Your task to perform on an android device: Clear the shopping cart on amazon. Search for logitech g pro on amazon, select the first entry, and add it to the cart. Image 0: 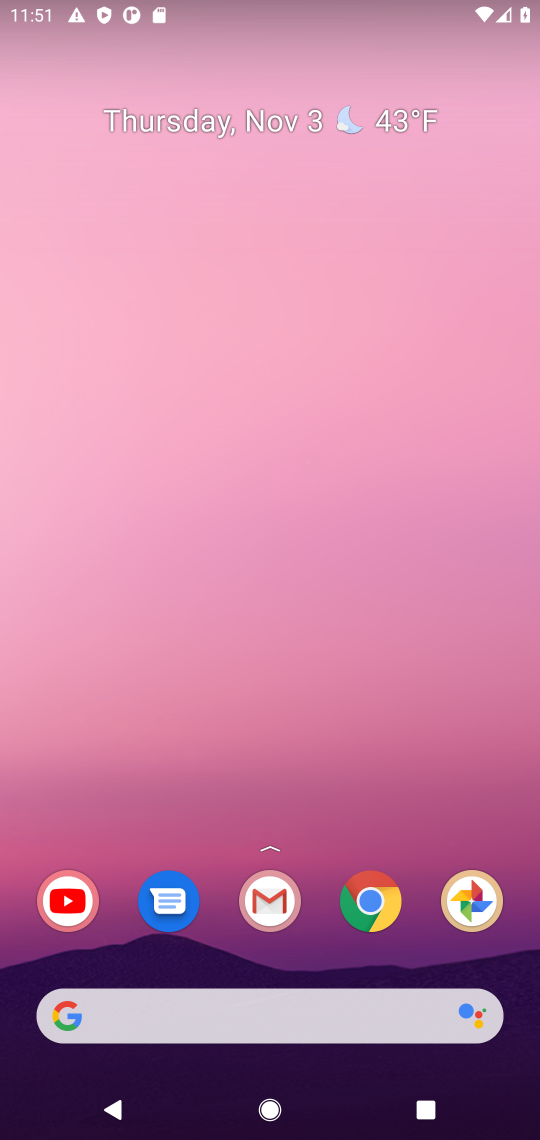
Step 0: click (378, 895)
Your task to perform on an android device: Clear the shopping cart on amazon. Search for logitech g pro on amazon, select the first entry, and add it to the cart. Image 1: 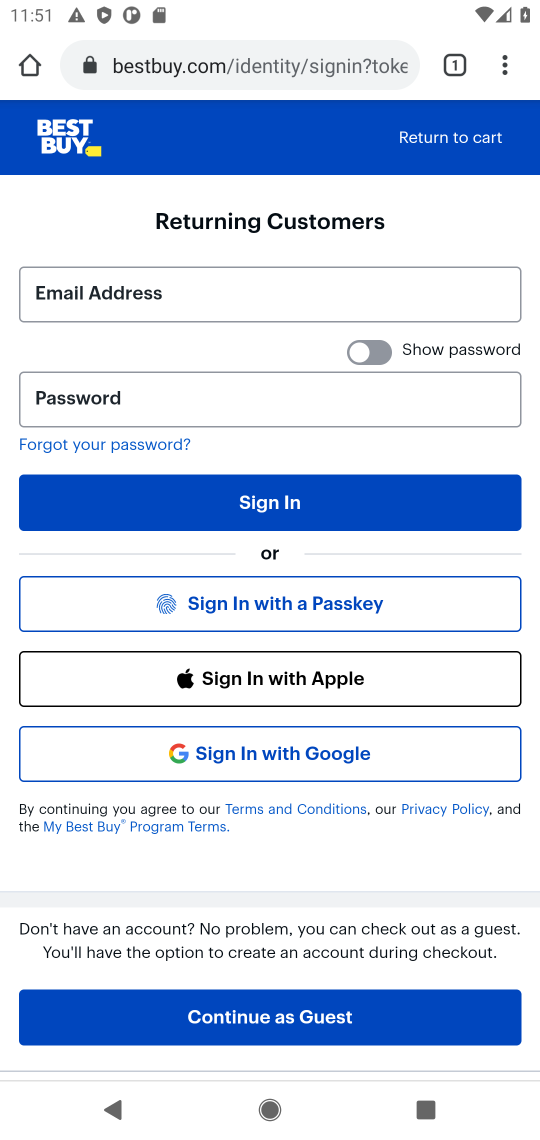
Step 1: click (174, 56)
Your task to perform on an android device: Clear the shopping cart on amazon. Search for logitech g pro on amazon, select the first entry, and add it to the cart. Image 2: 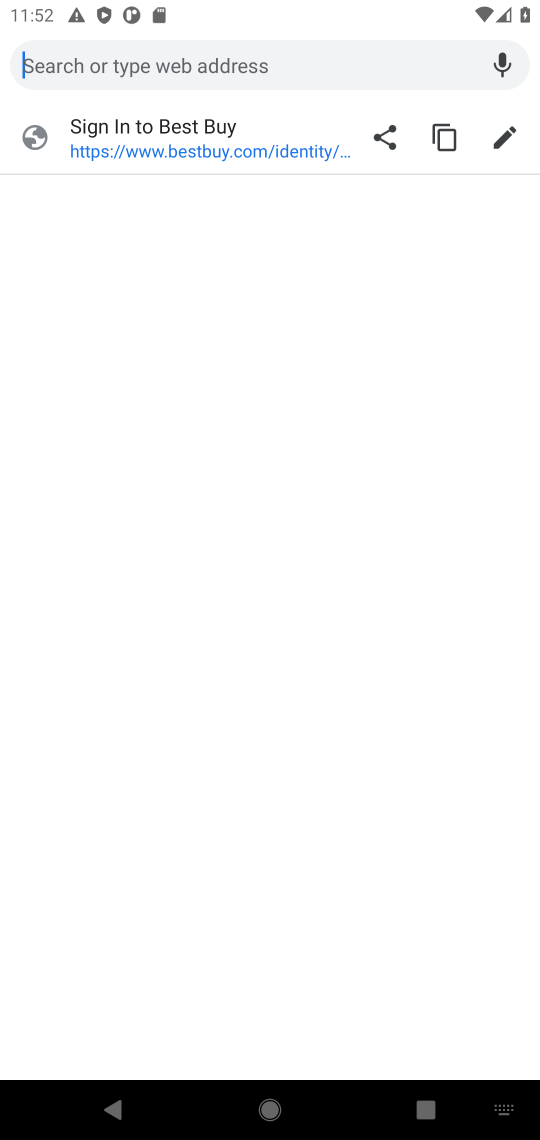
Step 2: type "amazon"
Your task to perform on an android device: Clear the shopping cart on amazon. Search for logitech g pro on amazon, select the first entry, and add it to the cart. Image 3: 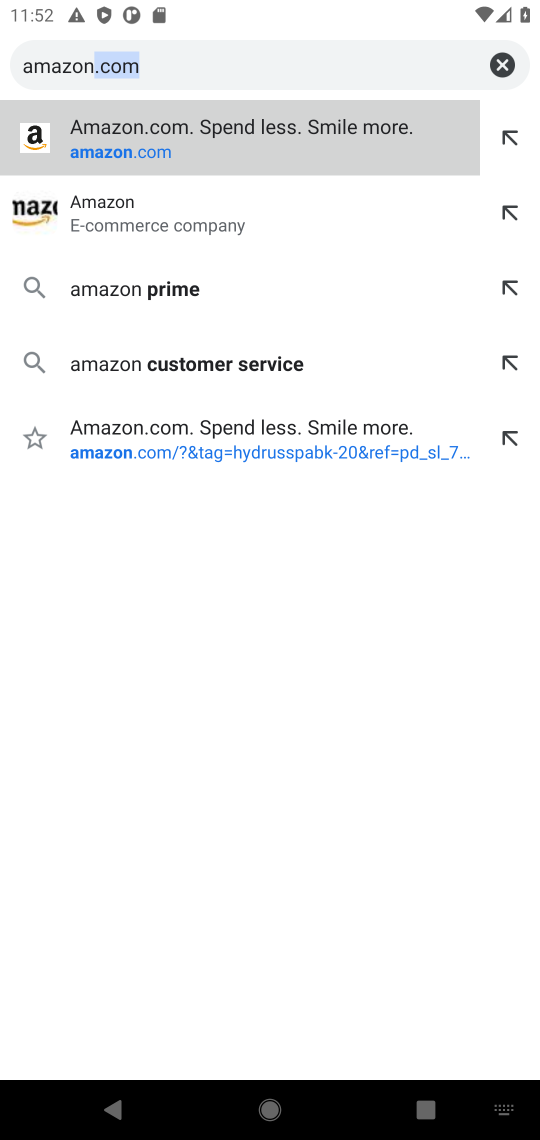
Step 3: click (161, 221)
Your task to perform on an android device: Clear the shopping cart on amazon. Search for logitech g pro on amazon, select the first entry, and add it to the cart. Image 4: 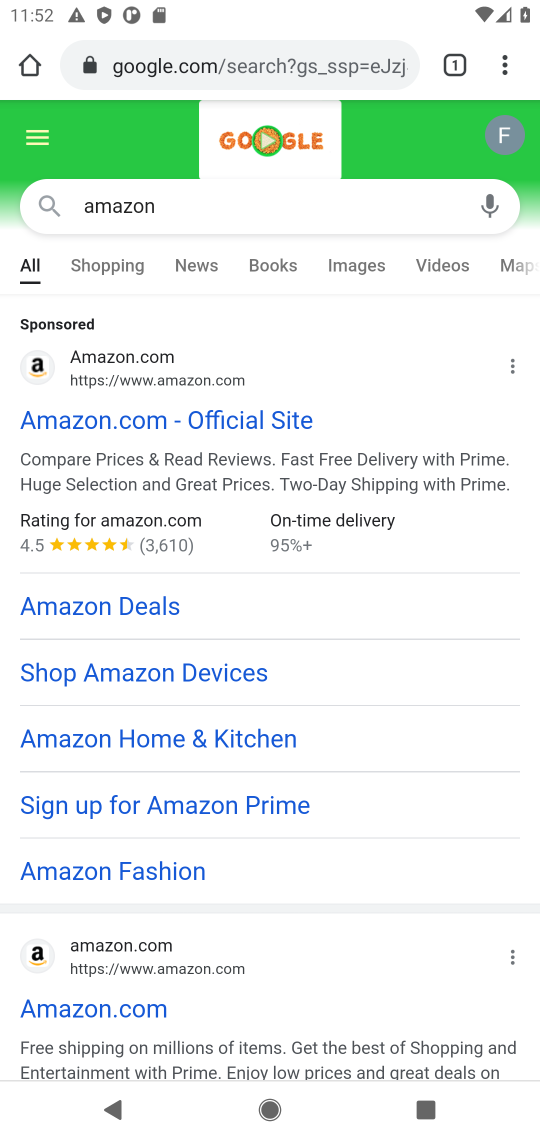
Step 4: click (222, 955)
Your task to perform on an android device: Clear the shopping cart on amazon. Search for logitech g pro on amazon, select the first entry, and add it to the cart. Image 5: 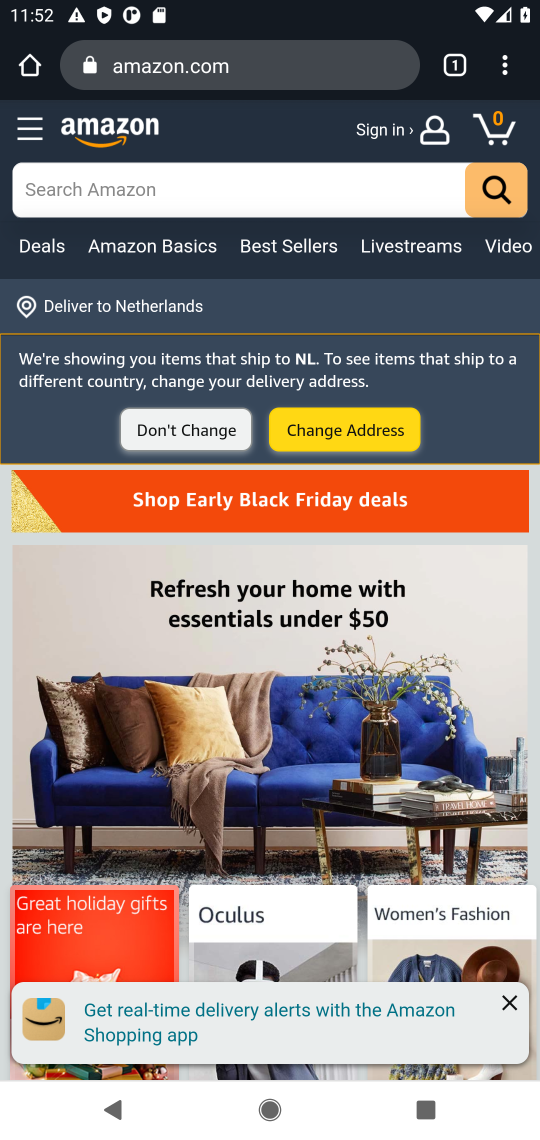
Step 5: click (223, 188)
Your task to perform on an android device: Clear the shopping cart on amazon. Search for logitech g pro on amazon, select the first entry, and add it to the cart. Image 6: 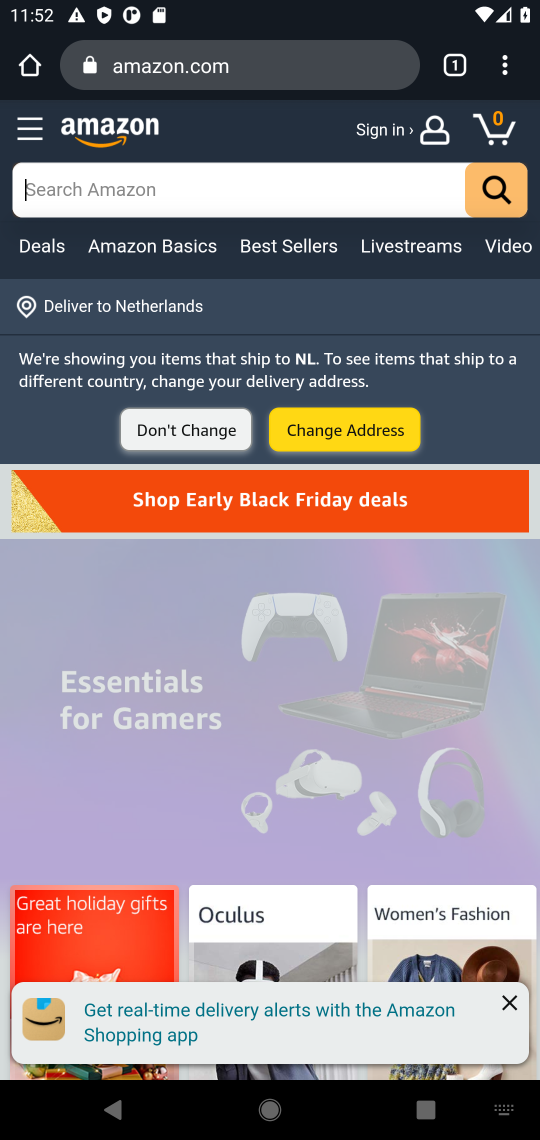
Step 6: type "logitech g pro"
Your task to perform on an android device: Clear the shopping cart on amazon. Search for logitech g pro on amazon, select the first entry, and add it to the cart. Image 7: 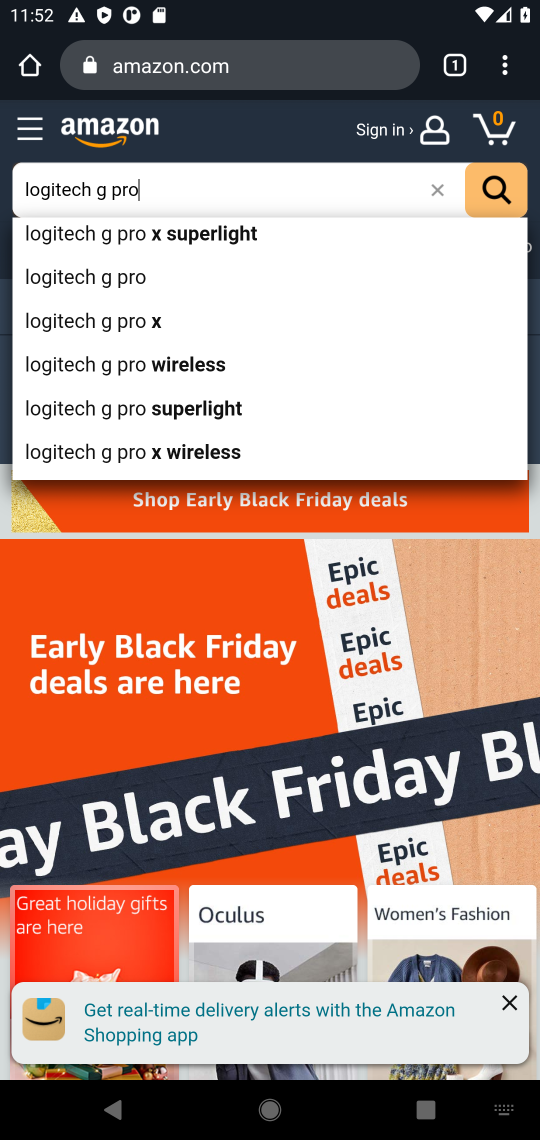
Step 7: click (105, 279)
Your task to perform on an android device: Clear the shopping cart on amazon. Search for logitech g pro on amazon, select the first entry, and add it to the cart. Image 8: 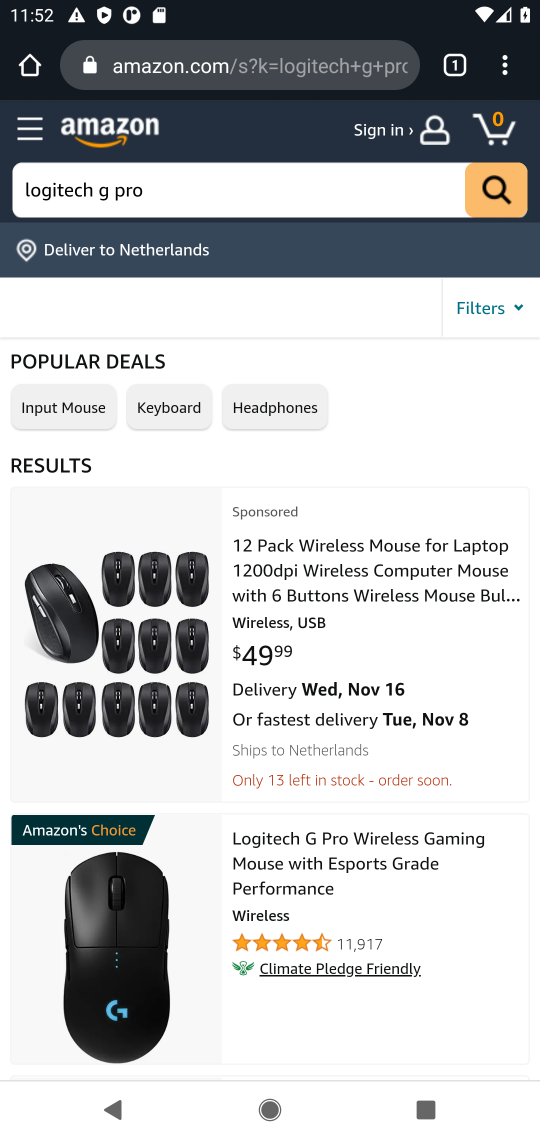
Step 8: click (146, 953)
Your task to perform on an android device: Clear the shopping cart on amazon. Search for logitech g pro on amazon, select the first entry, and add it to the cart. Image 9: 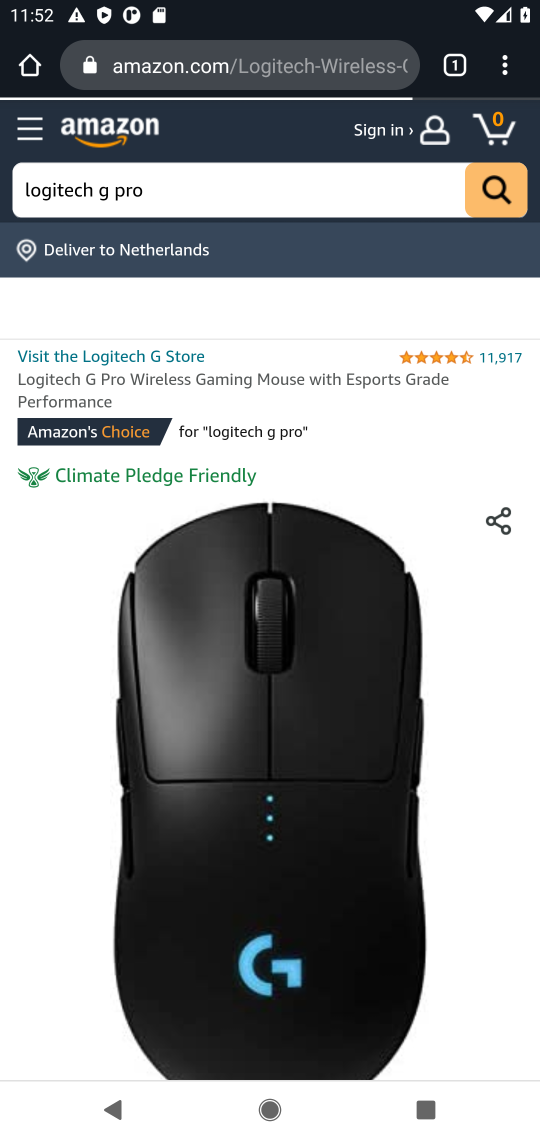
Step 9: drag from (377, 875) to (436, 316)
Your task to perform on an android device: Clear the shopping cart on amazon. Search for logitech g pro on amazon, select the first entry, and add it to the cart. Image 10: 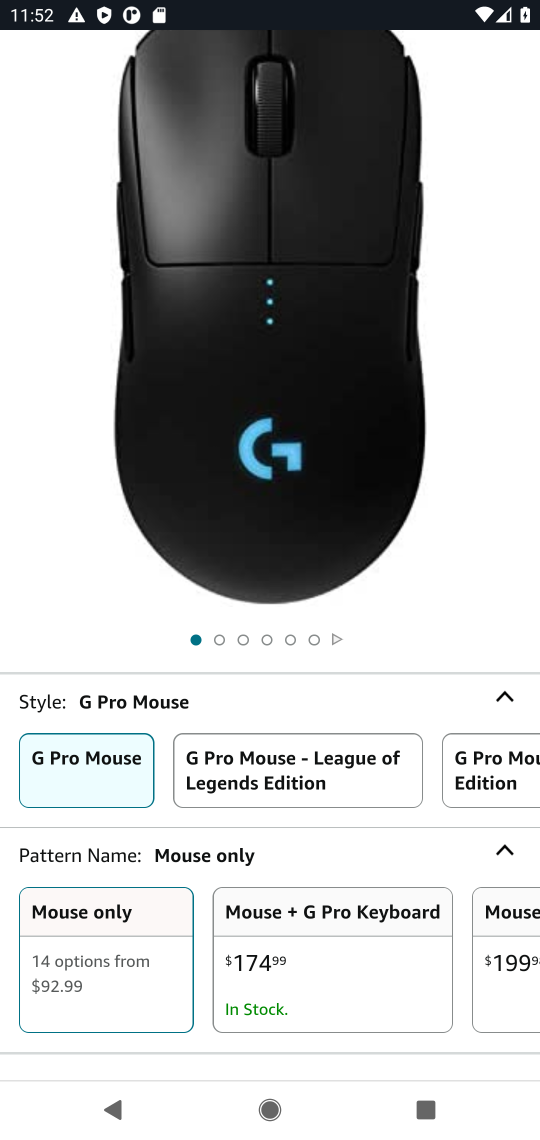
Step 10: drag from (413, 688) to (512, 279)
Your task to perform on an android device: Clear the shopping cart on amazon. Search for logitech g pro on amazon, select the first entry, and add it to the cart. Image 11: 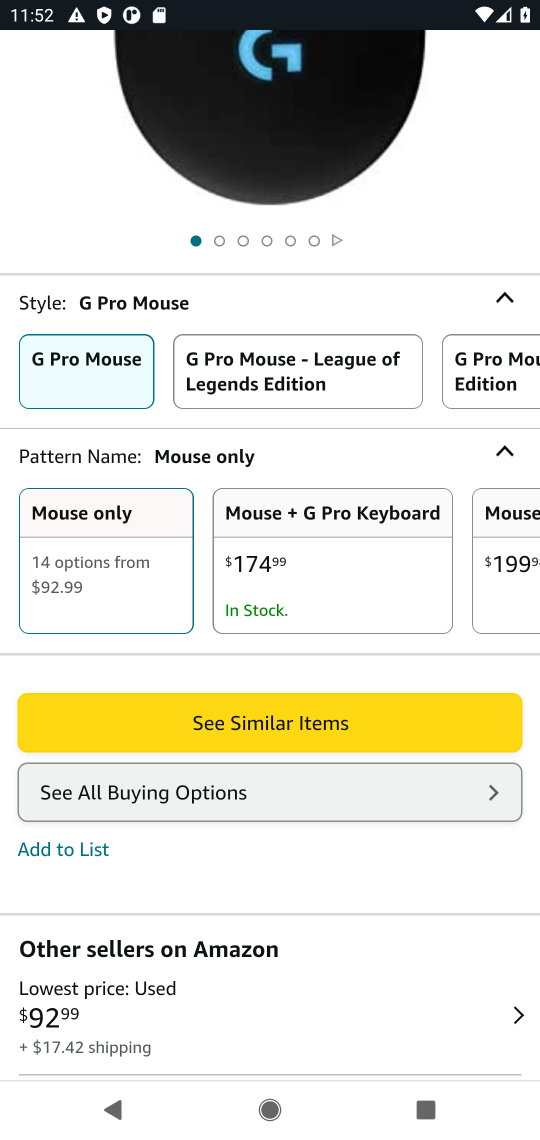
Step 11: press back button
Your task to perform on an android device: Clear the shopping cart on amazon. Search for logitech g pro on amazon, select the first entry, and add it to the cart. Image 12: 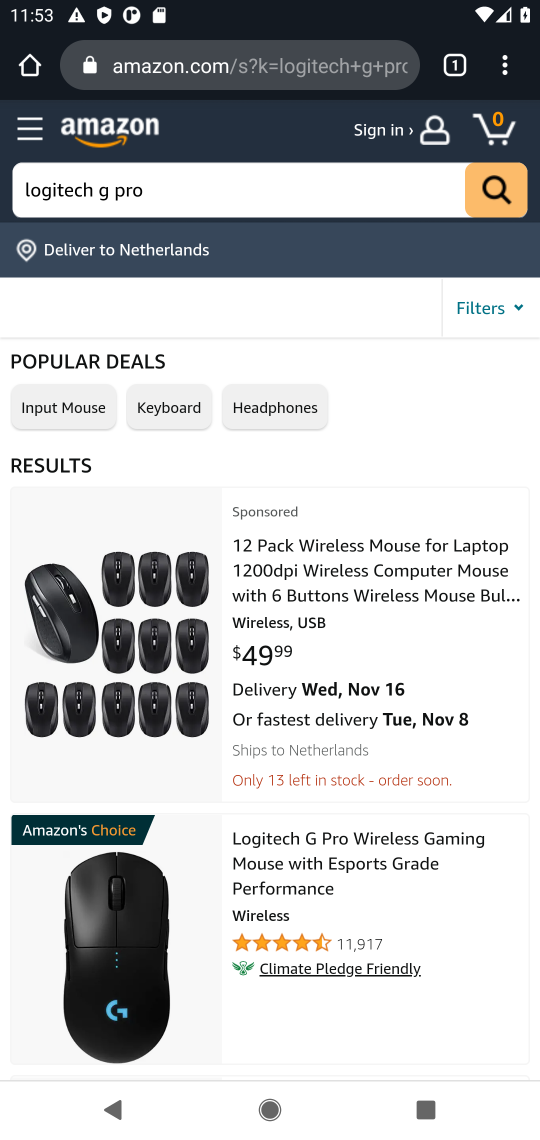
Step 12: drag from (383, 919) to (396, 428)
Your task to perform on an android device: Clear the shopping cart on amazon. Search for logitech g pro on amazon, select the first entry, and add it to the cart. Image 13: 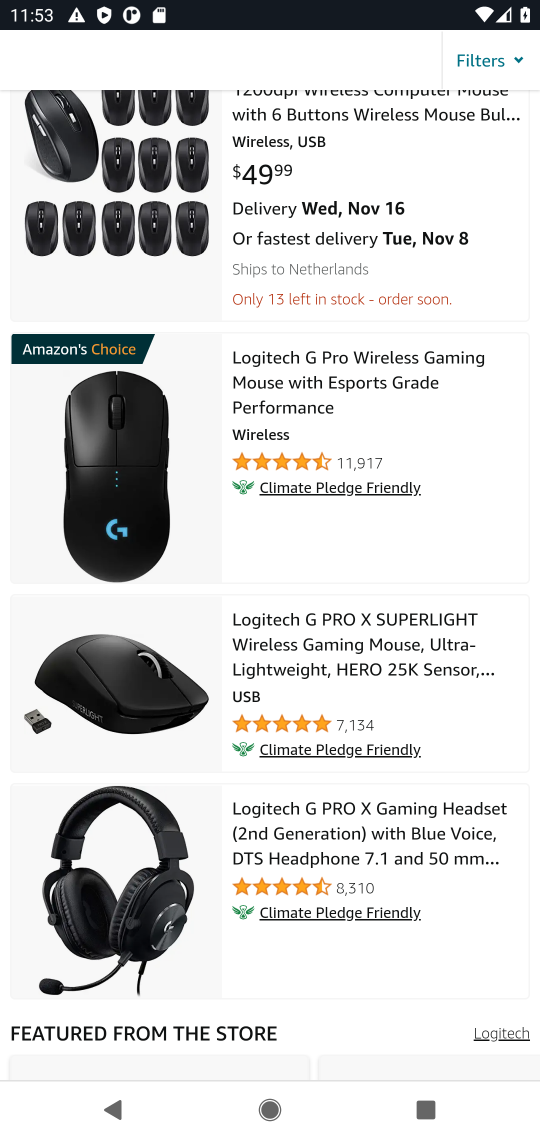
Step 13: click (97, 679)
Your task to perform on an android device: Clear the shopping cart on amazon. Search for logitech g pro on amazon, select the first entry, and add it to the cart. Image 14: 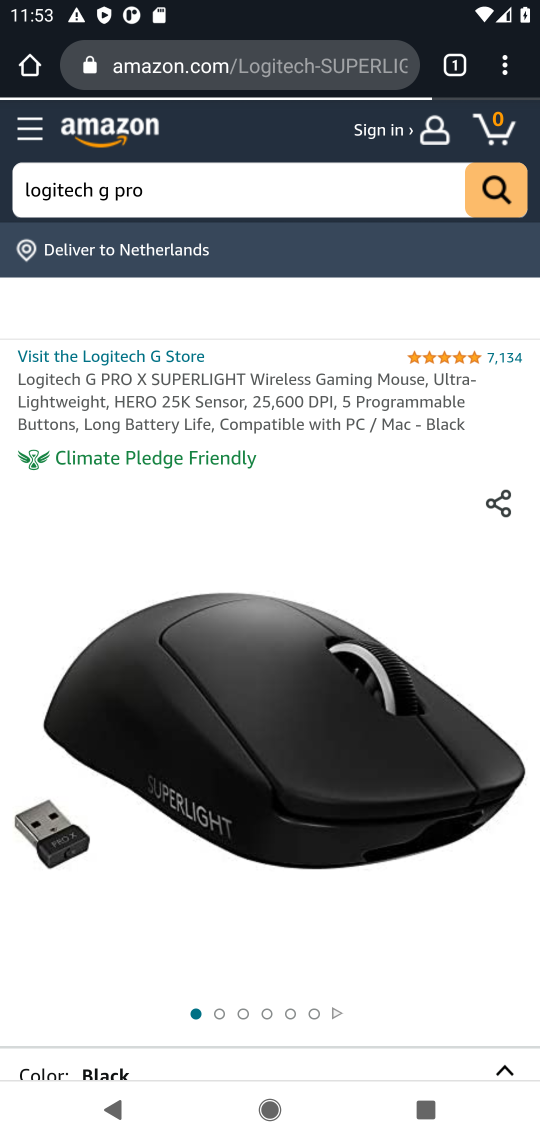
Step 14: drag from (384, 889) to (346, 323)
Your task to perform on an android device: Clear the shopping cart on amazon. Search for logitech g pro on amazon, select the first entry, and add it to the cart. Image 15: 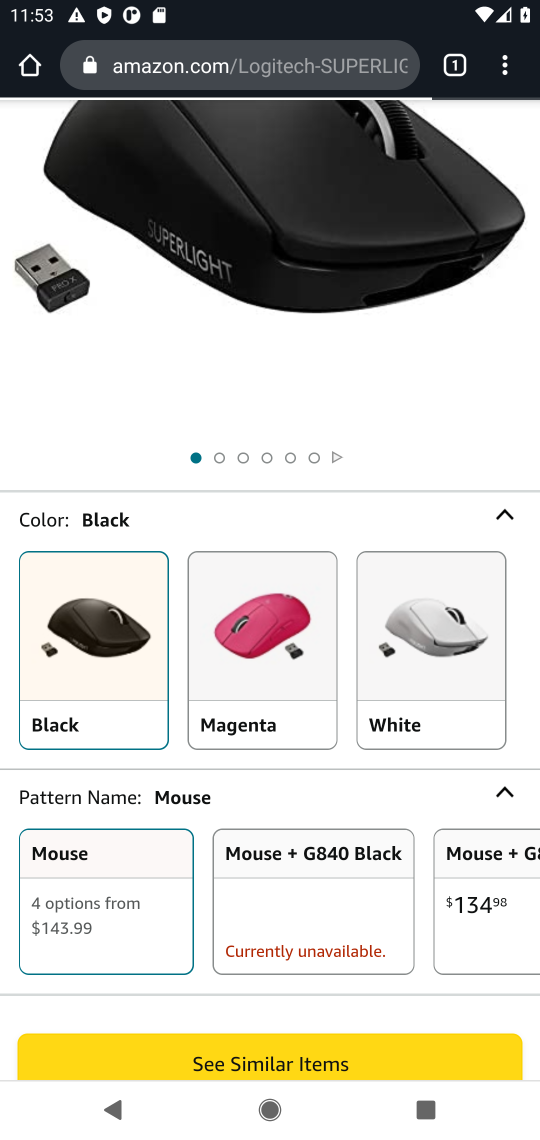
Step 15: press back button
Your task to perform on an android device: Clear the shopping cart on amazon. Search for logitech g pro on amazon, select the first entry, and add it to the cart. Image 16: 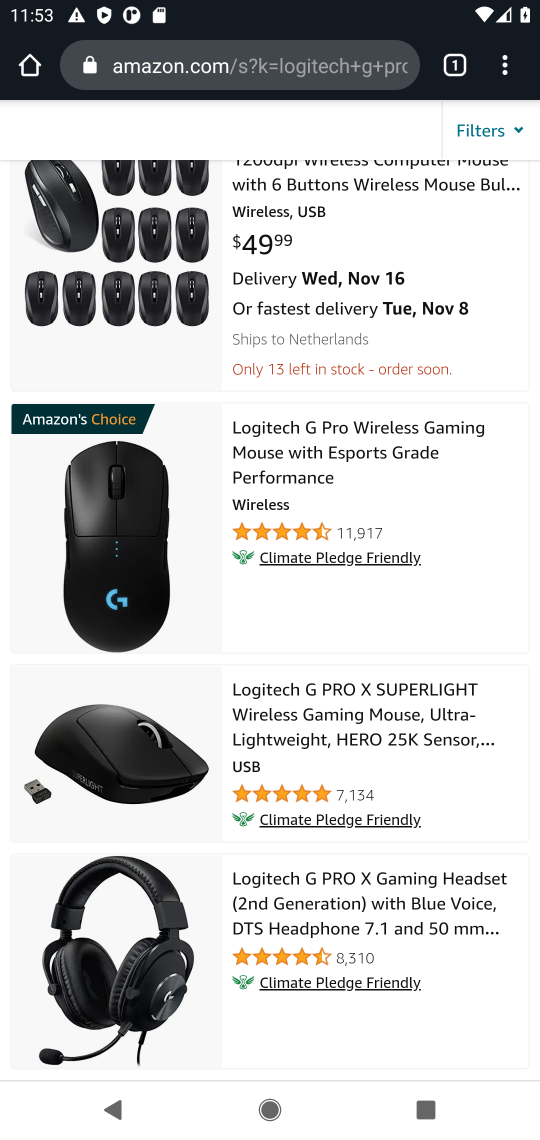
Step 16: click (159, 975)
Your task to perform on an android device: Clear the shopping cart on amazon. Search for logitech g pro on amazon, select the first entry, and add it to the cart. Image 17: 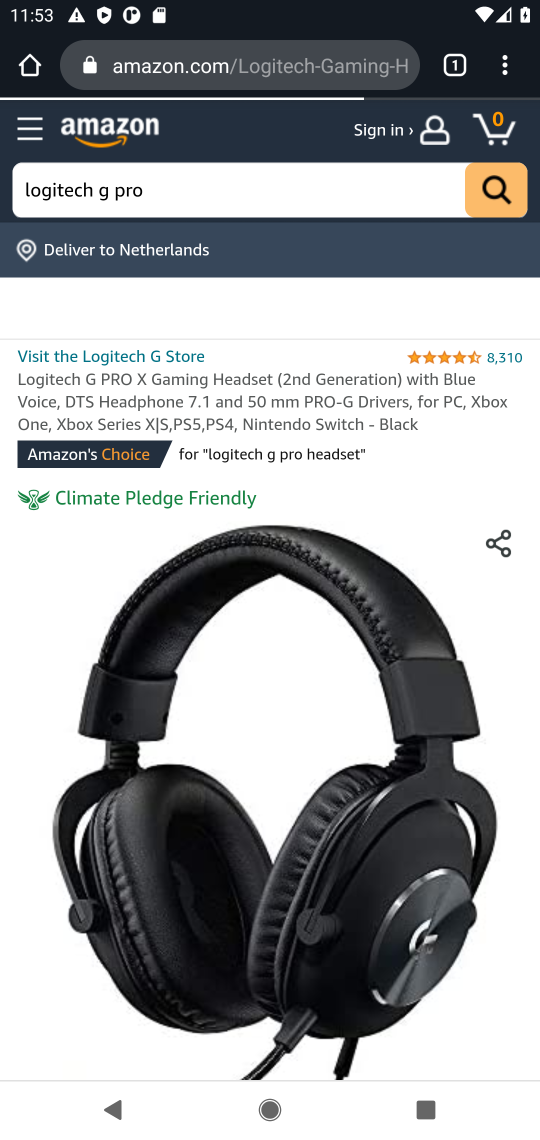
Step 17: drag from (393, 889) to (388, 330)
Your task to perform on an android device: Clear the shopping cart on amazon. Search for logitech g pro on amazon, select the first entry, and add it to the cart. Image 18: 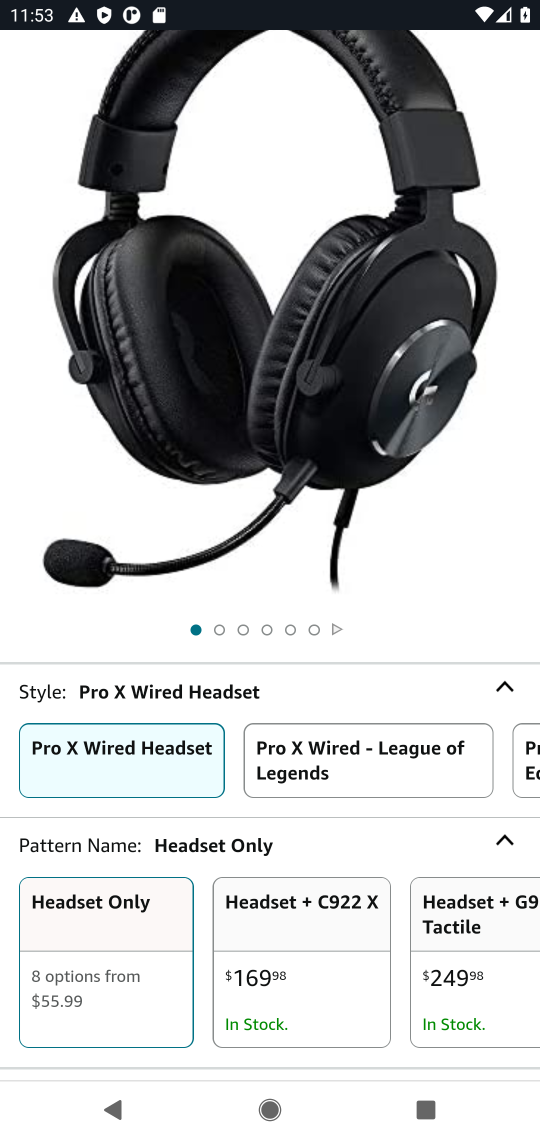
Step 18: drag from (409, 783) to (410, 388)
Your task to perform on an android device: Clear the shopping cart on amazon. Search for logitech g pro on amazon, select the first entry, and add it to the cart. Image 19: 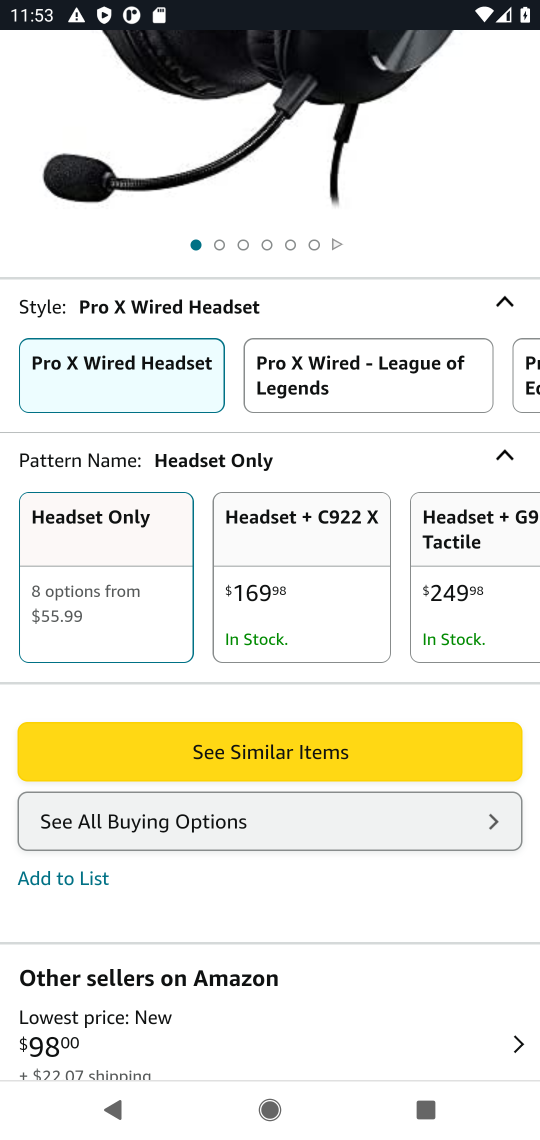
Step 19: press back button
Your task to perform on an android device: Clear the shopping cart on amazon. Search for logitech g pro on amazon, select the first entry, and add it to the cart. Image 20: 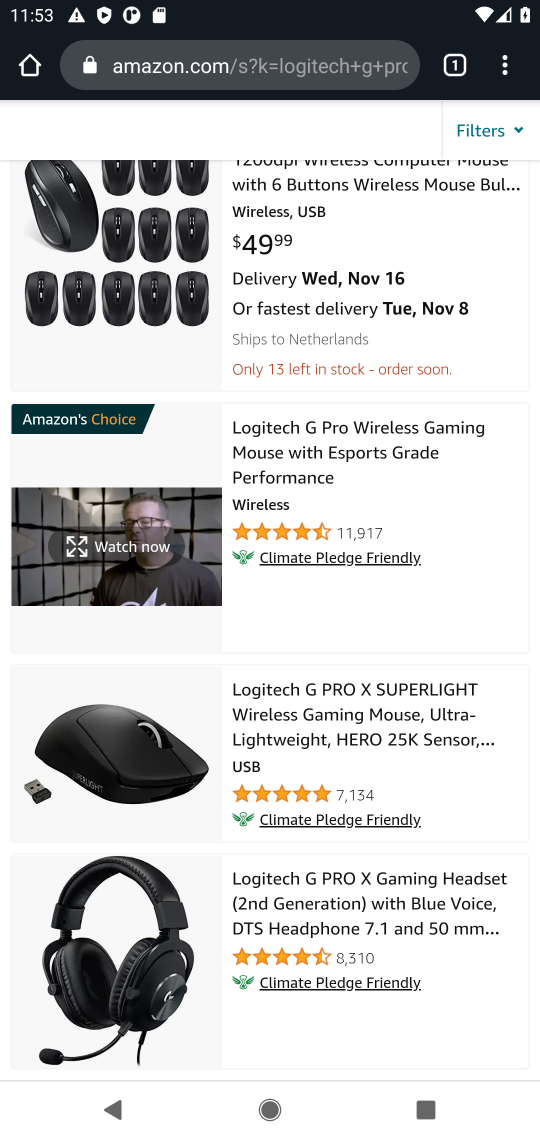
Step 20: drag from (336, 772) to (359, 402)
Your task to perform on an android device: Clear the shopping cart on amazon. Search for logitech g pro on amazon, select the first entry, and add it to the cart. Image 21: 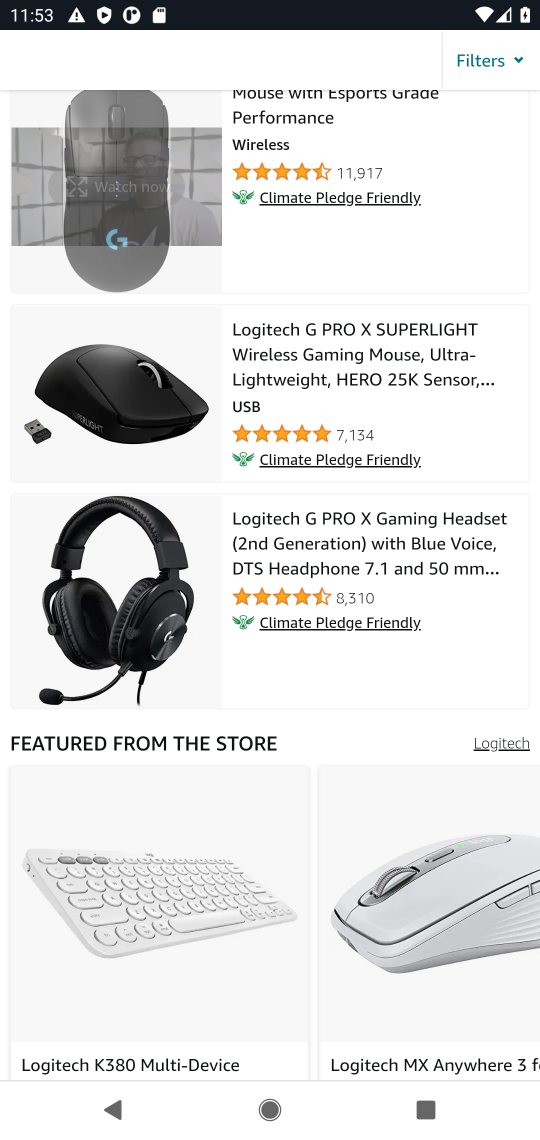
Step 21: drag from (296, 777) to (318, 348)
Your task to perform on an android device: Clear the shopping cart on amazon. Search for logitech g pro on amazon, select the first entry, and add it to the cart. Image 22: 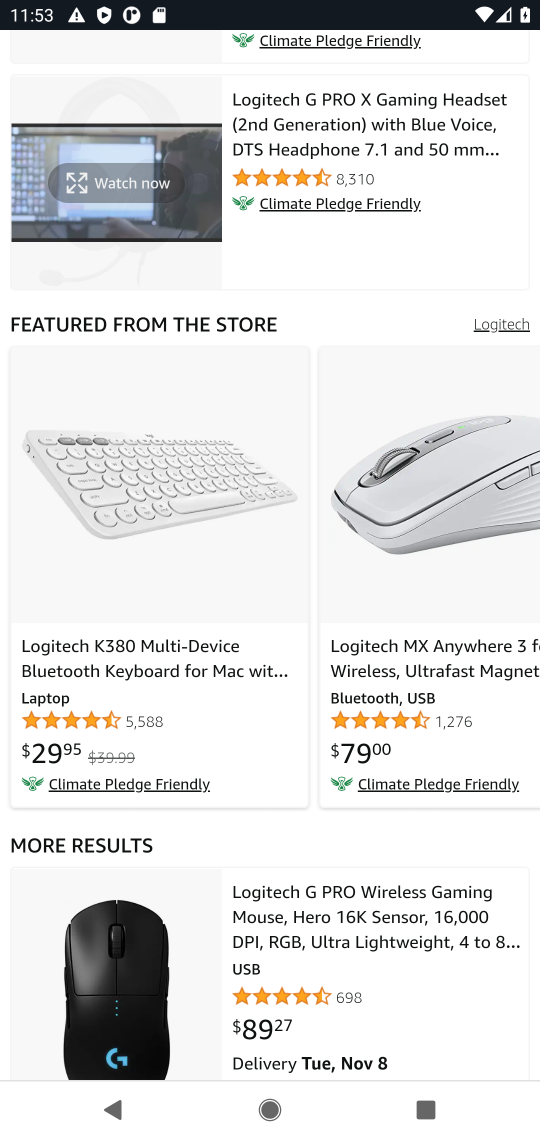
Step 22: click (129, 972)
Your task to perform on an android device: Clear the shopping cart on amazon. Search for logitech g pro on amazon, select the first entry, and add it to the cart. Image 23: 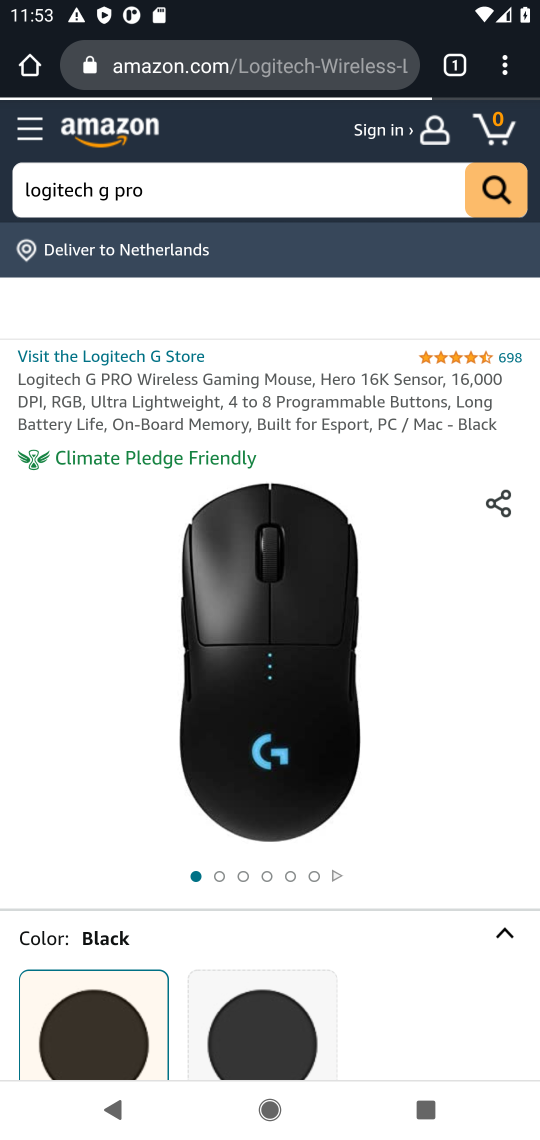
Step 23: drag from (443, 939) to (390, 348)
Your task to perform on an android device: Clear the shopping cart on amazon. Search for logitech g pro on amazon, select the first entry, and add it to the cart. Image 24: 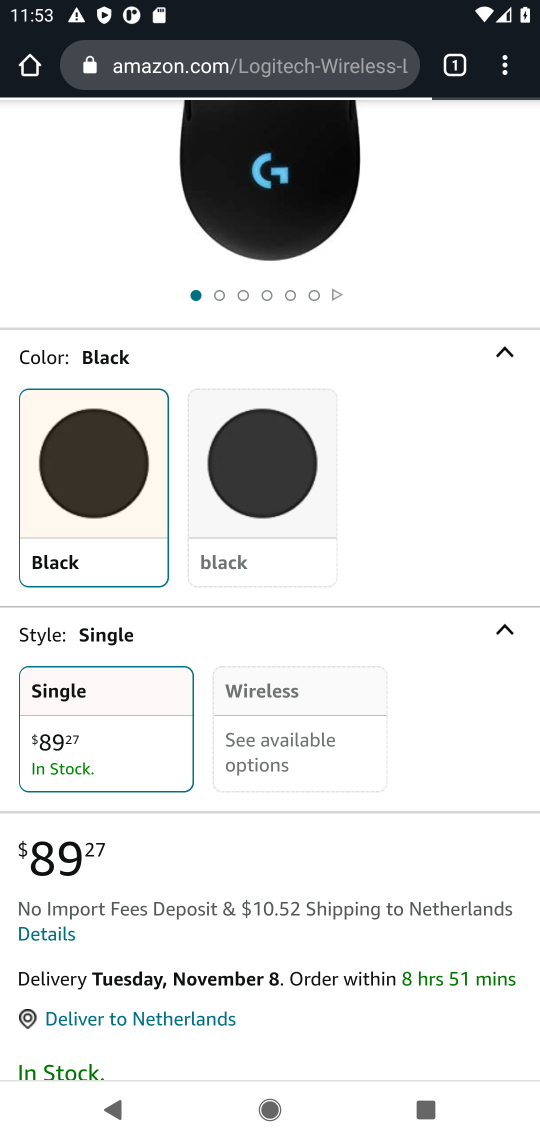
Step 24: drag from (404, 821) to (404, 388)
Your task to perform on an android device: Clear the shopping cart on amazon. Search for logitech g pro on amazon, select the first entry, and add it to the cart. Image 25: 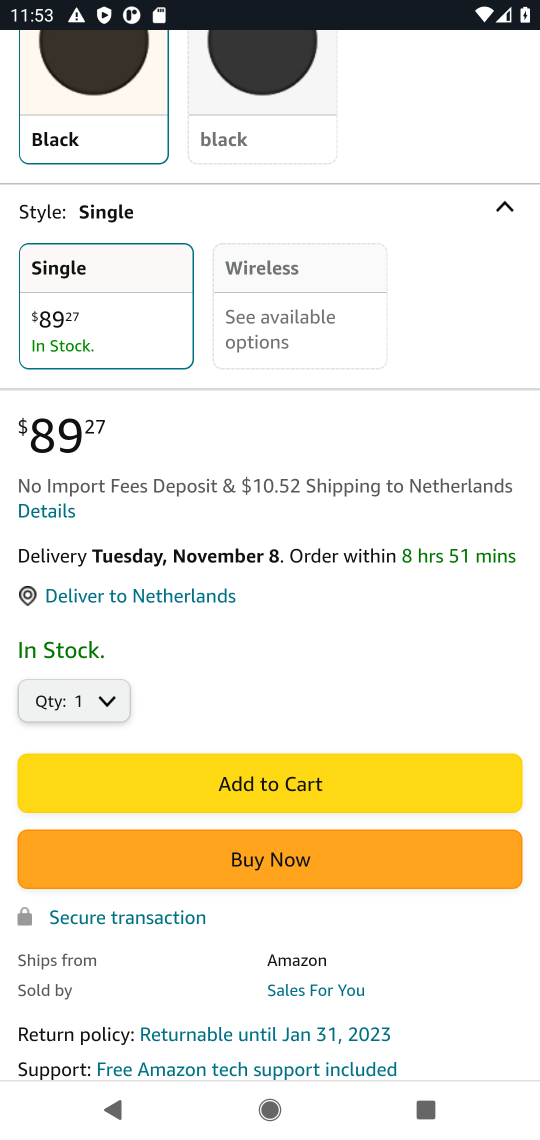
Step 25: click (331, 789)
Your task to perform on an android device: Clear the shopping cart on amazon. Search for logitech g pro on amazon, select the first entry, and add it to the cart. Image 26: 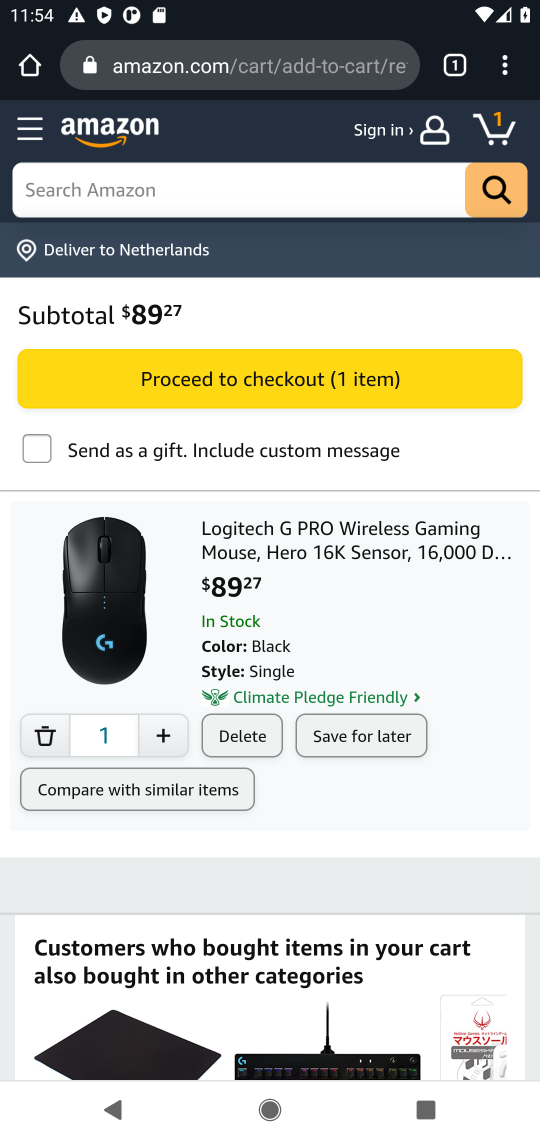
Step 26: task complete